Your task to perform on an android device: open app "NewsBreak: Local News & Alerts" (install if not already installed) Image 0: 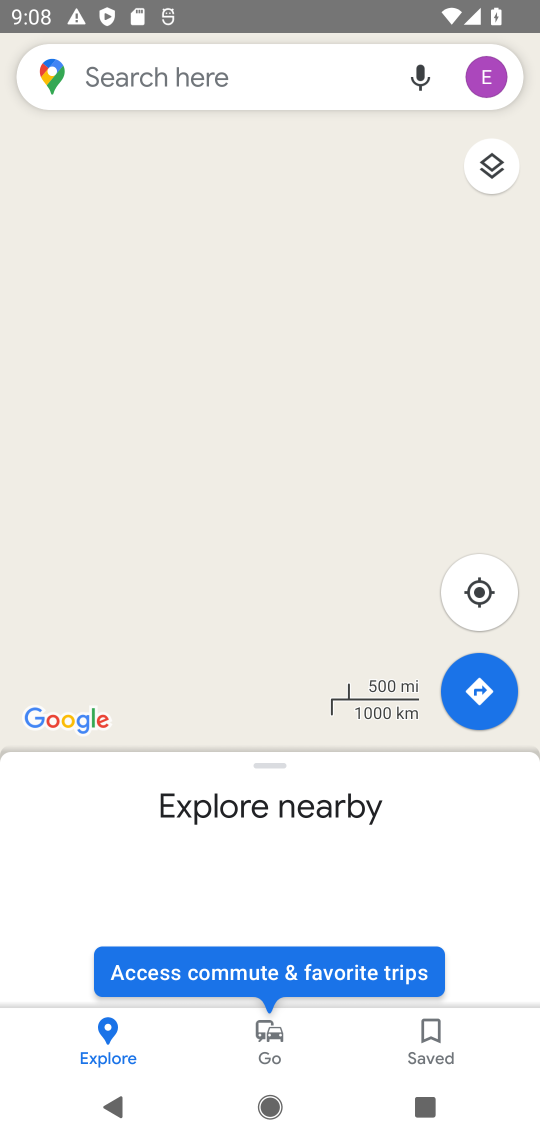
Step 0: press home button
Your task to perform on an android device: open app "NewsBreak: Local News & Alerts" (install if not already installed) Image 1: 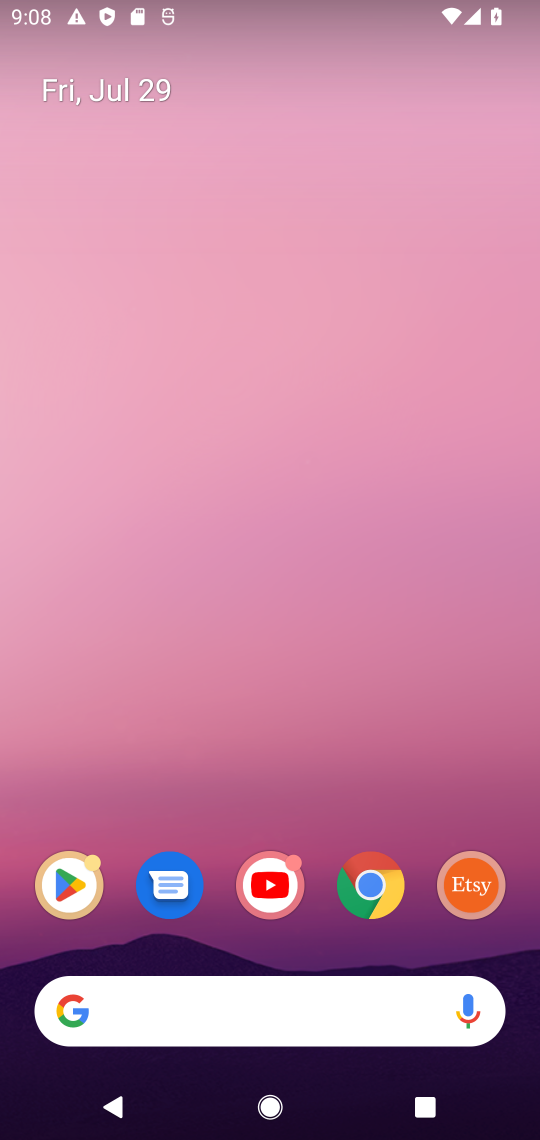
Step 1: click (60, 883)
Your task to perform on an android device: open app "NewsBreak: Local News & Alerts" (install if not already installed) Image 2: 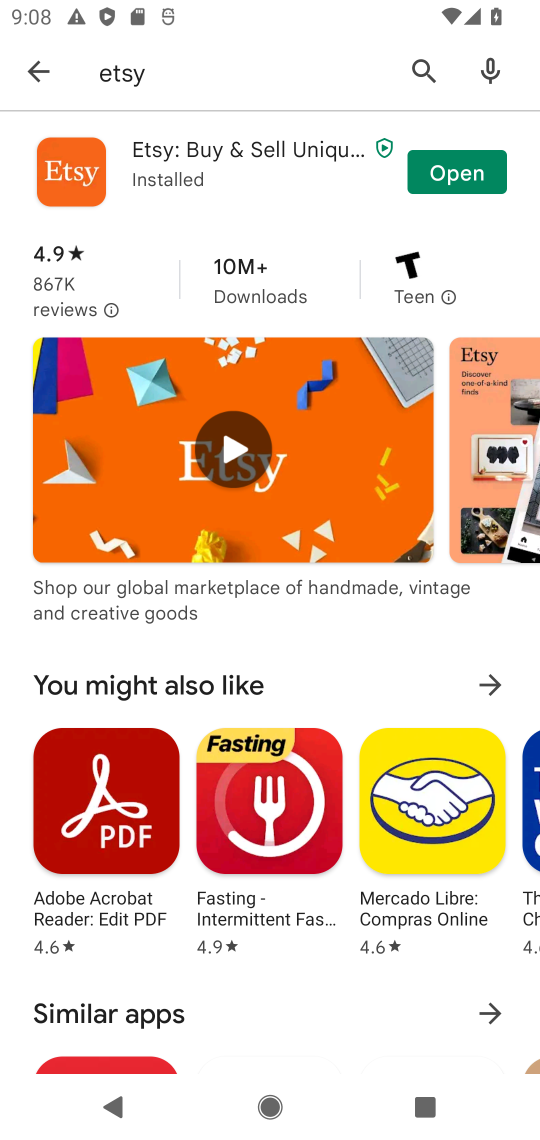
Step 2: click (180, 73)
Your task to perform on an android device: open app "NewsBreak: Local News & Alerts" (install if not already installed) Image 3: 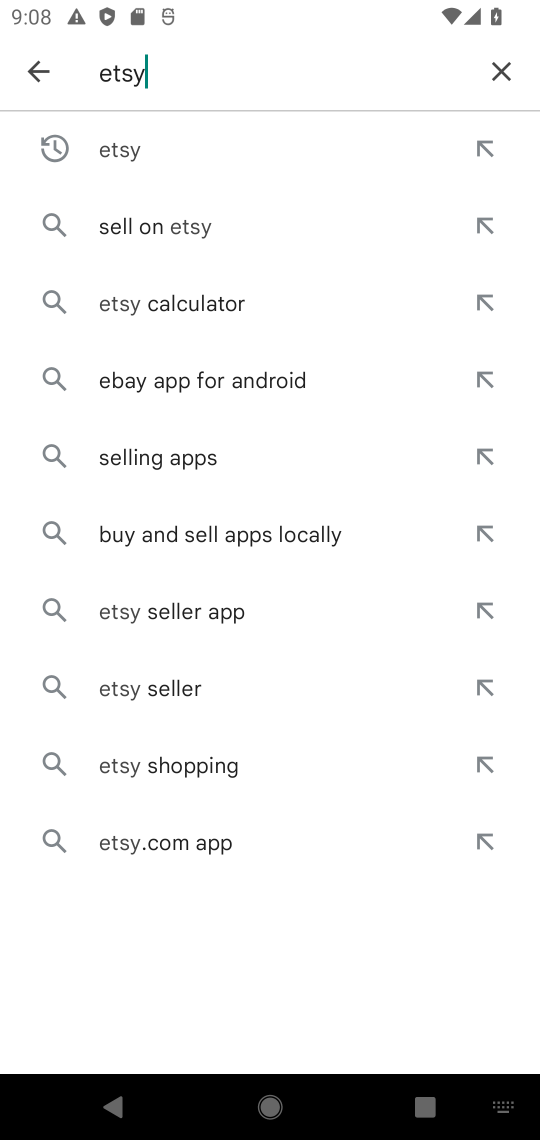
Step 3: click (504, 73)
Your task to perform on an android device: open app "NewsBreak: Local News & Alerts" (install if not already installed) Image 4: 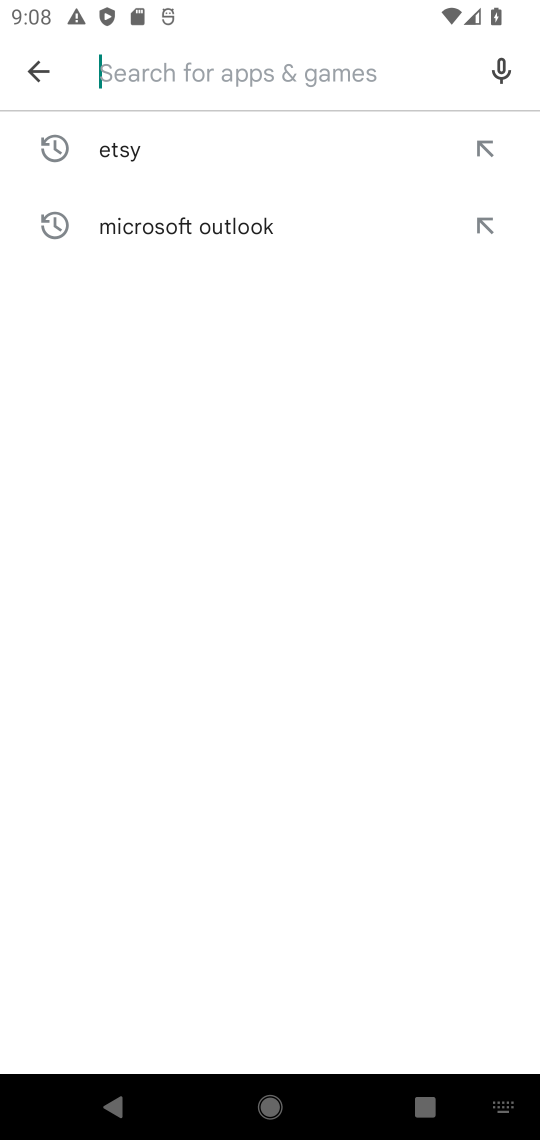
Step 4: type "newsBreak"
Your task to perform on an android device: open app "NewsBreak: Local News & Alerts" (install if not already installed) Image 5: 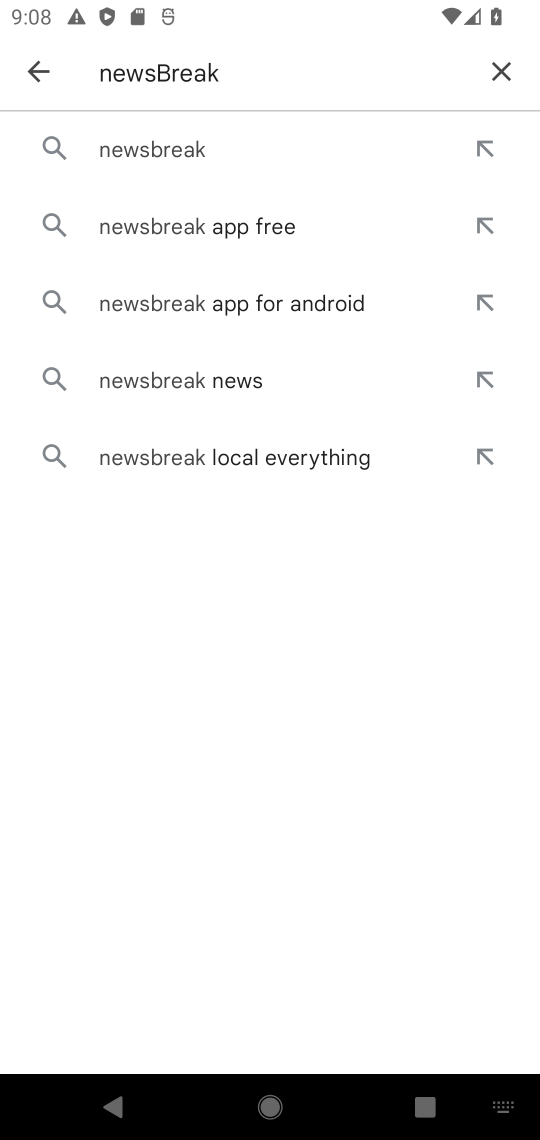
Step 5: click (201, 161)
Your task to perform on an android device: open app "NewsBreak: Local News & Alerts" (install if not already installed) Image 6: 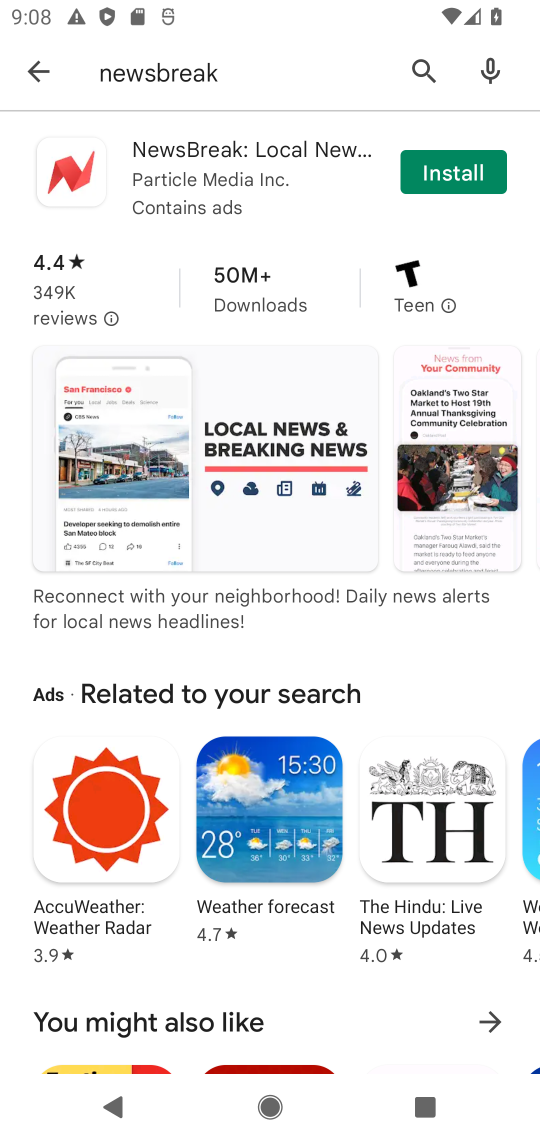
Step 6: click (455, 170)
Your task to perform on an android device: open app "NewsBreak: Local News & Alerts" (install if not already installed) Image 7: 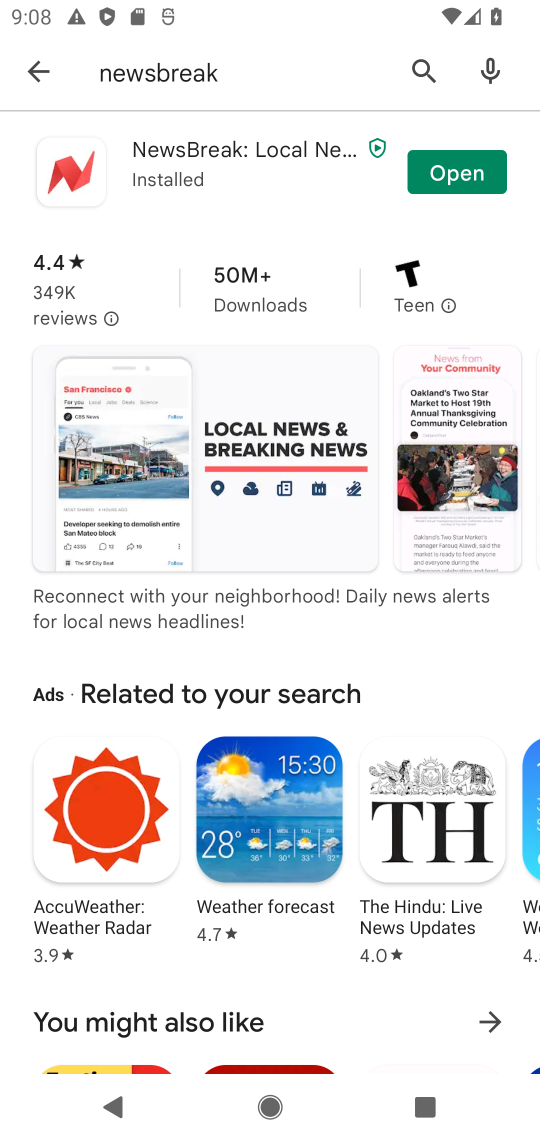
Step 7: click (447, 173)
Your task to perform on an android device: open app "NewsBreak: Local News & Alerts" (install if not already installed) Image 8: 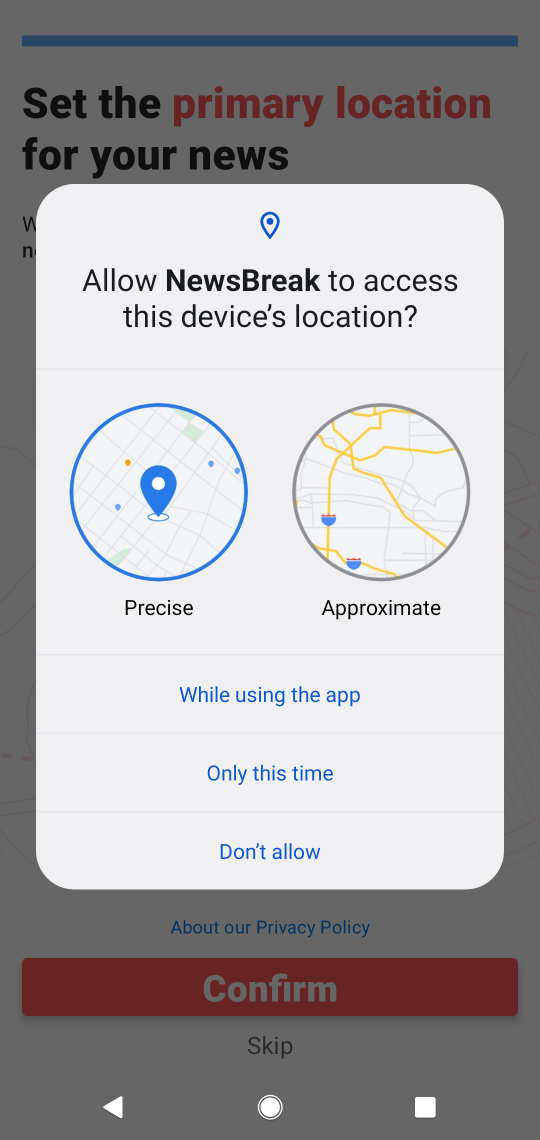
Step 8: click (303, 699)
Your task to perform on an android device: open app "NewsBreak: Local News & Alerts" (install if not already installed) Image 9: 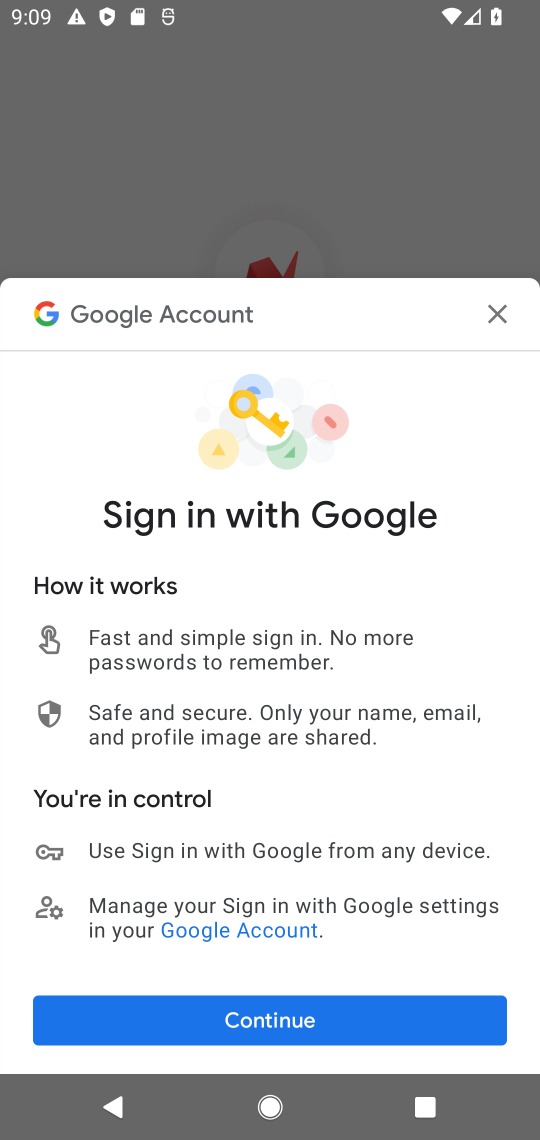
Step 9: click (273, 1033)
Your task to perform on an android device: open app "NewsBreak: Local News & Alerts" (install if not already installed) Image 10: 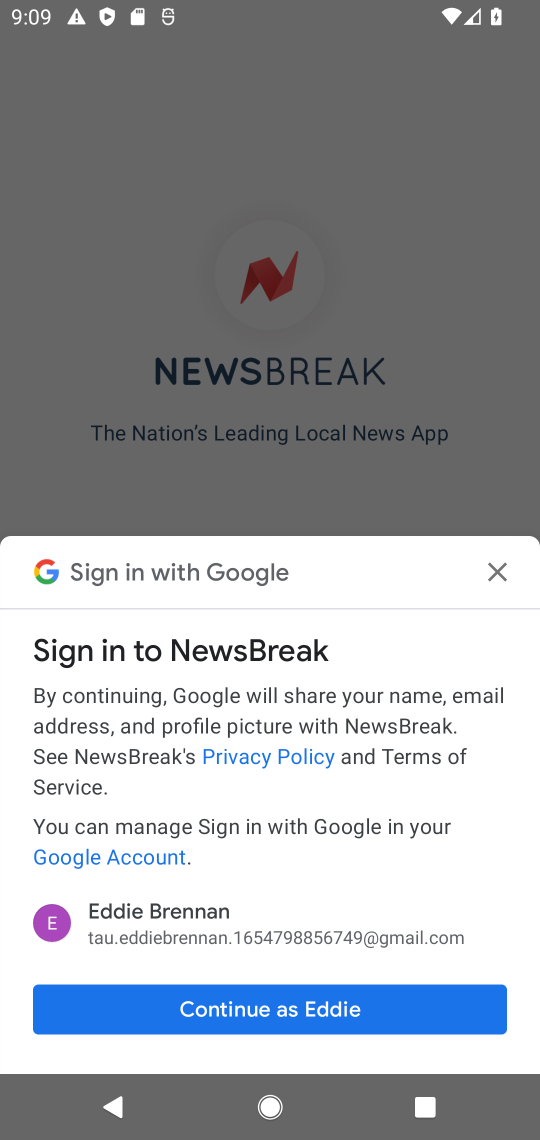
Step 10: click (238, 1014)
Your task to perform on an android device: open app "NewsBreak: Local News & Alerts" (install if not already installed) Image 11: 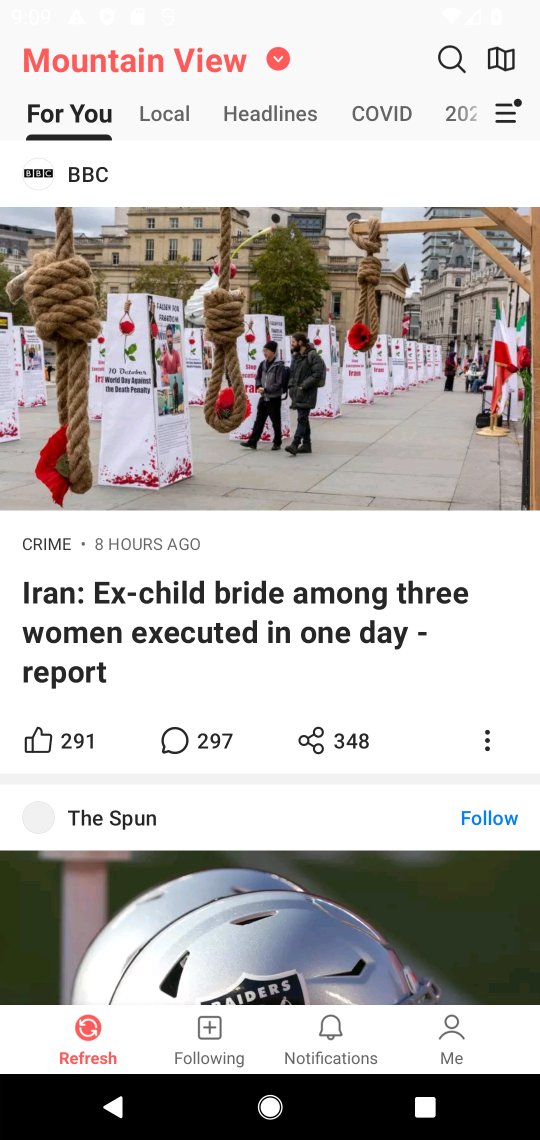
Step 11: task complete